Your task to perform on an android device: What is the recent news? Image 0: 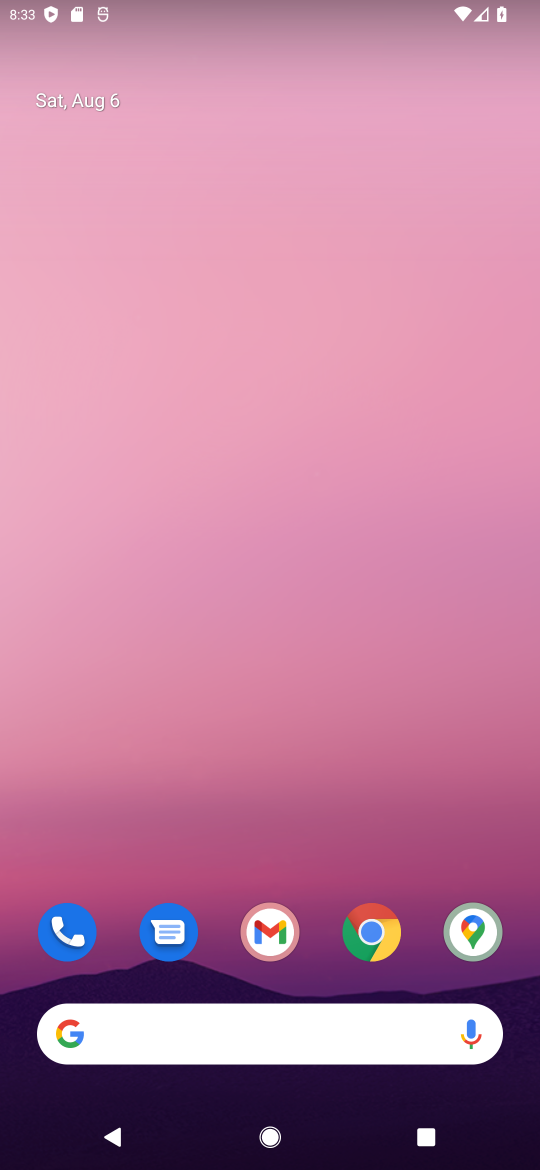
Step 0: press home button
Your task to perform on an android device: What is the recent news? Image 1: 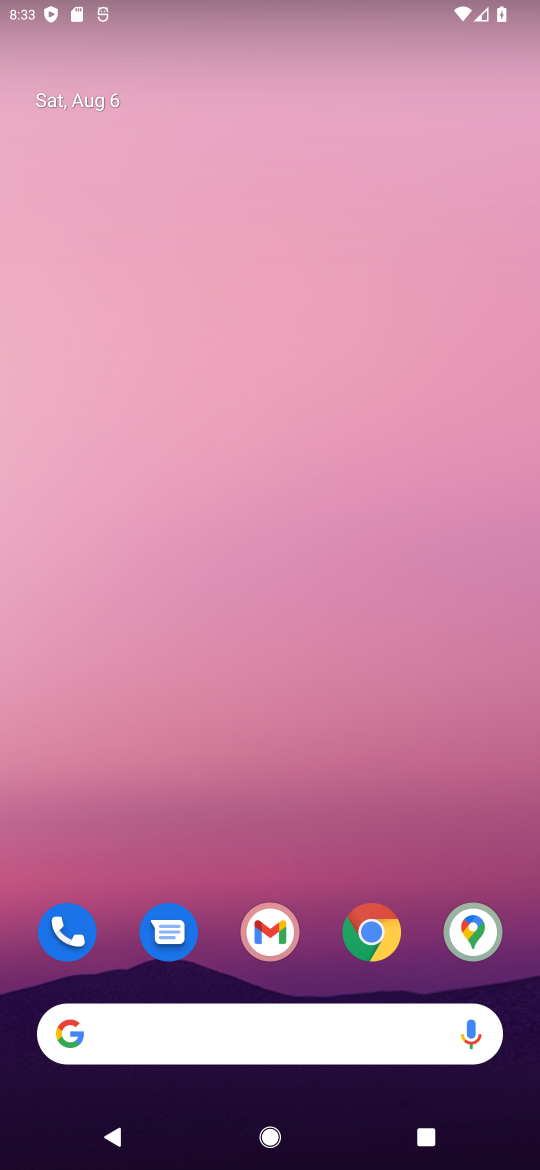
Step 1: drag from (235, 1040) to (298, 177)
Your task to perform on an android device: What is the recent news? Image 2: 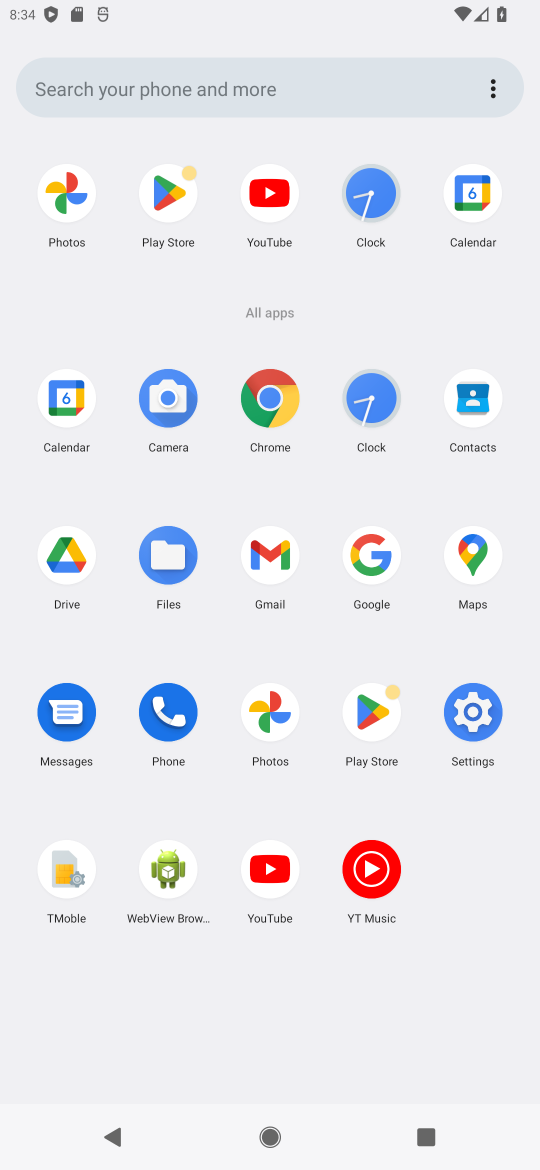
Step 2: click (372, 551)
Your task to perform on an android device: What is the recent news? Image 3: 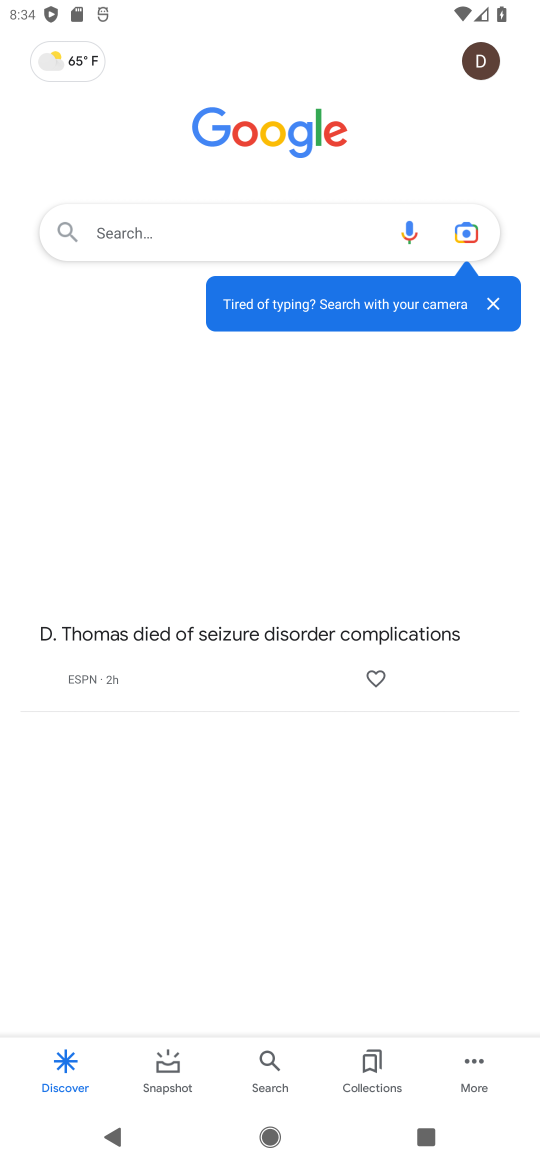
Step 3: click (279, 220)
Your task to perform on an android device: What is the recent news? Image 4: 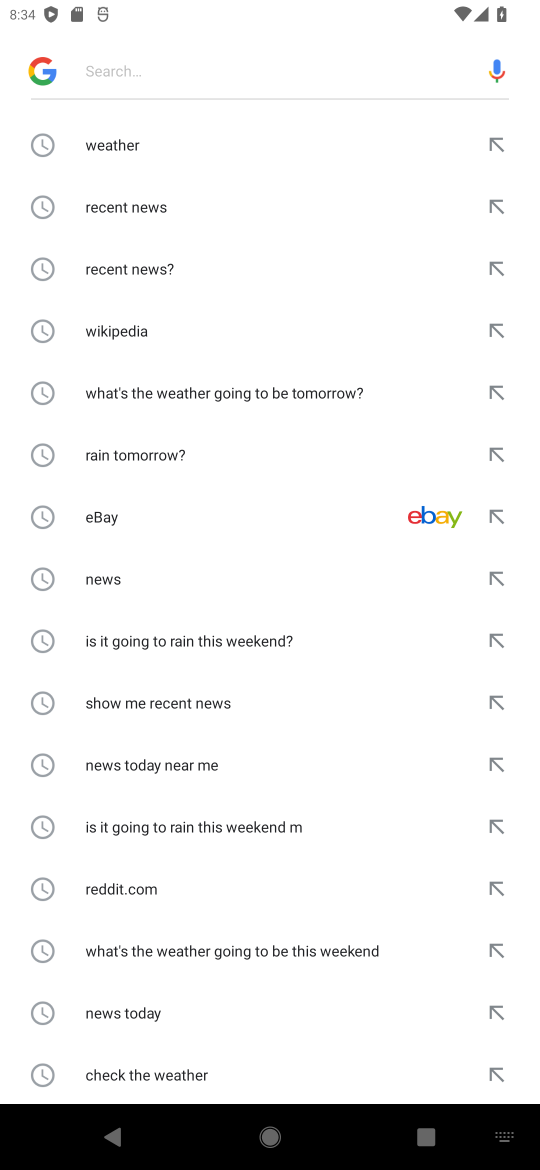
Step 4: type "recent news"
Your task to perform on an android device: What is the recent news? Image 5: 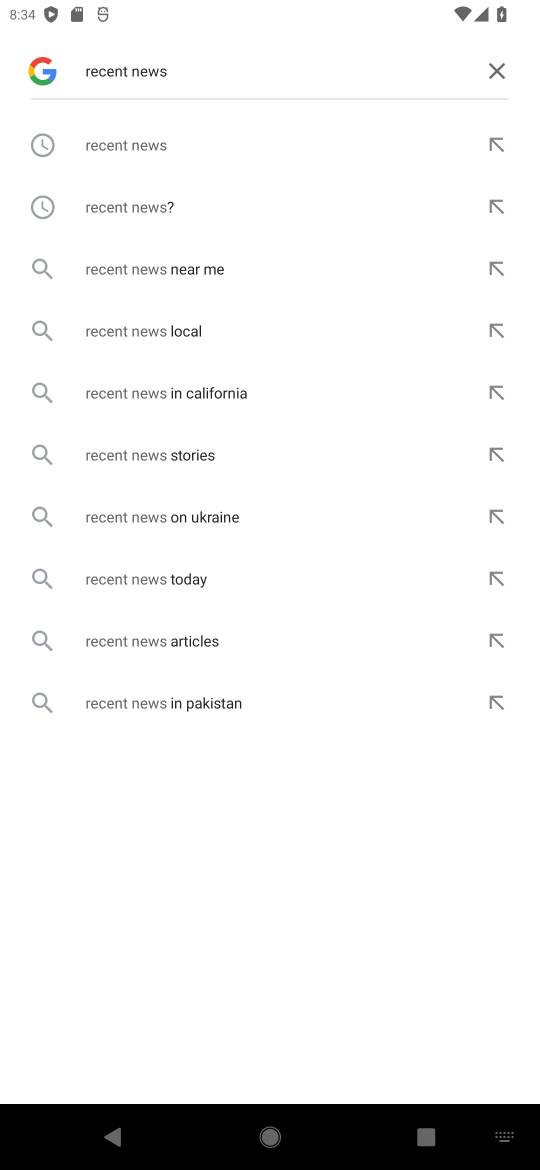
Step 5: click (163, 201)
Your task to perform on an android device: What is the recent news? Image 6: 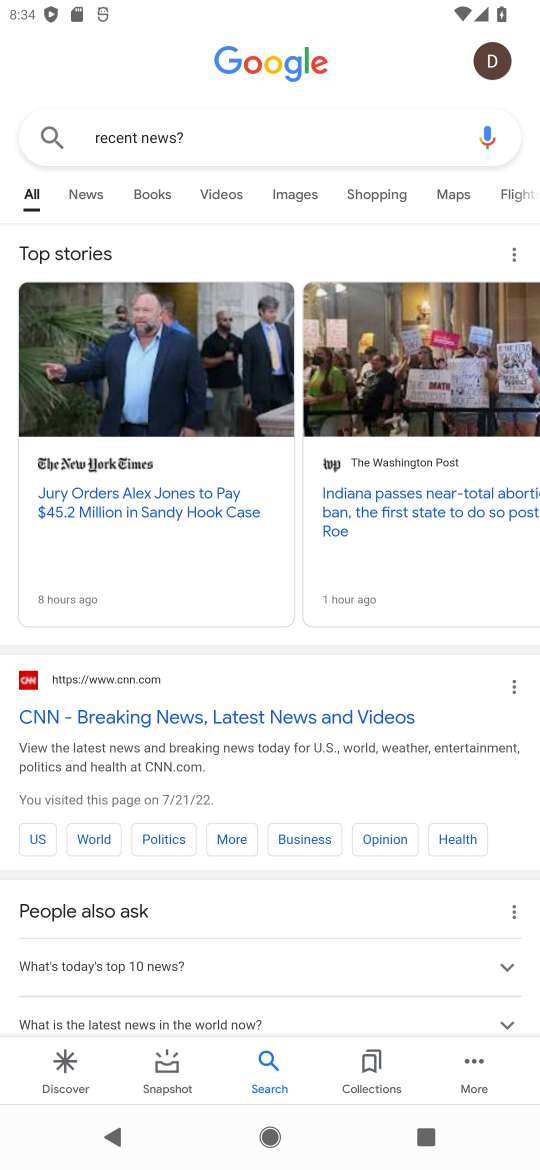
Step 6: click (388, 507)
Your task to perform on an android device: What is the recent news? Image 7: 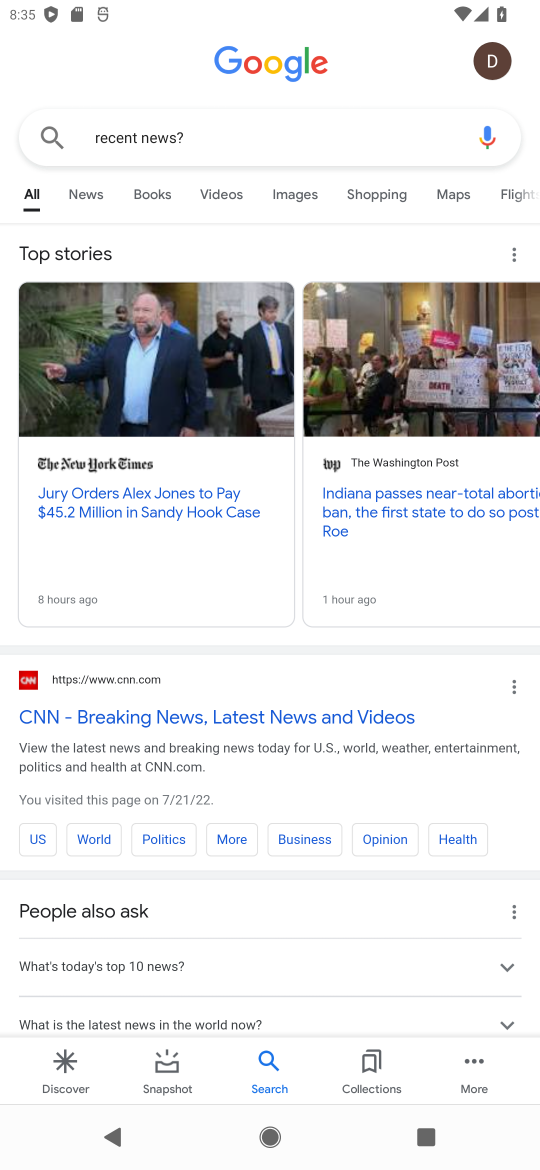
Step 7: click (392, 503)
Your task to perform on an android device: What is the recent news? Image 8: 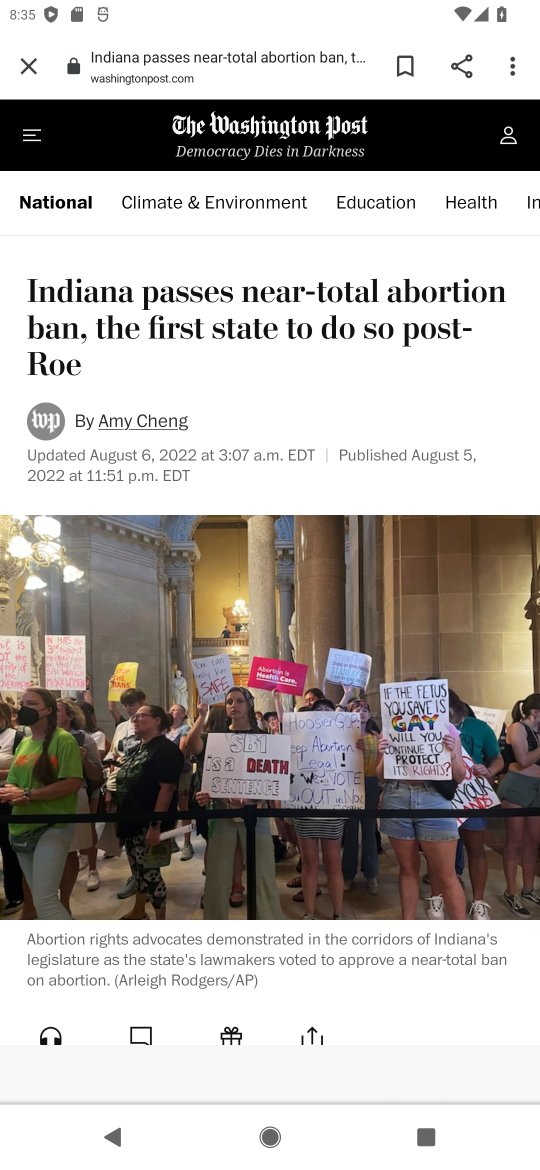
Step 8: task complete